Your task to perform on an android device: turn off location history Image 0: 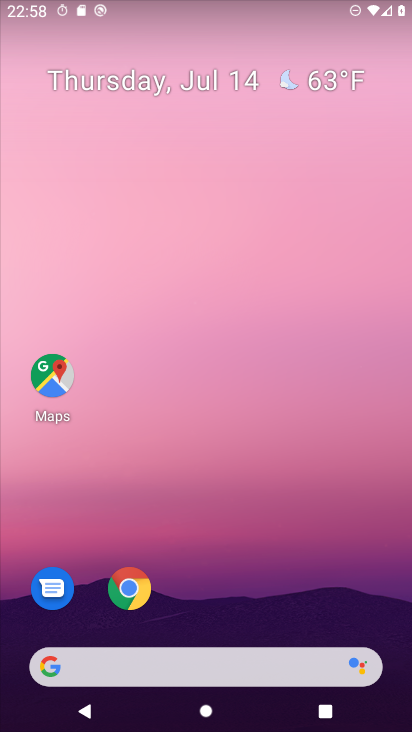
Step 0: drag from (385, 601) to (398, 94)
Your task to perform on an android device: turn off location history Image 1: 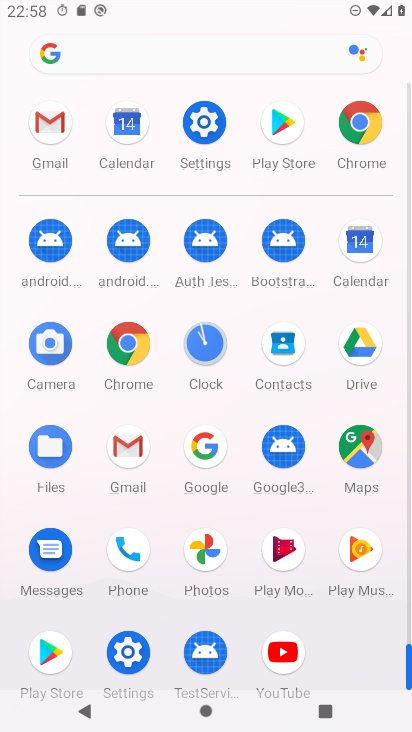
Step 1: click (195, 147)
Your task to perform on an android device: turn off location history Image 2: 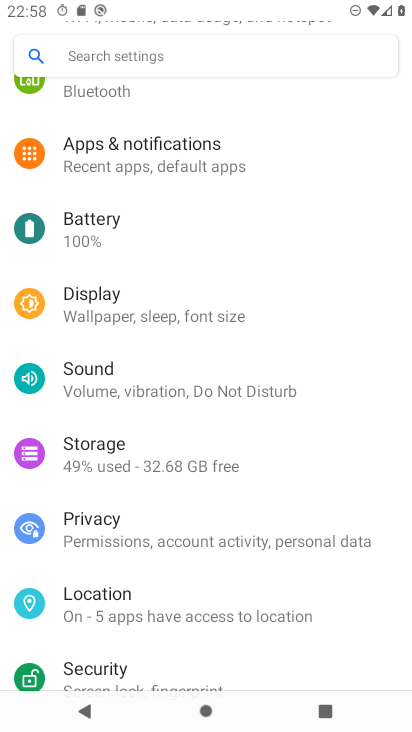
Step 2: drag from (368, 225) to (349, 299)
Your task to perform on an android device: turn off location history Image 3: 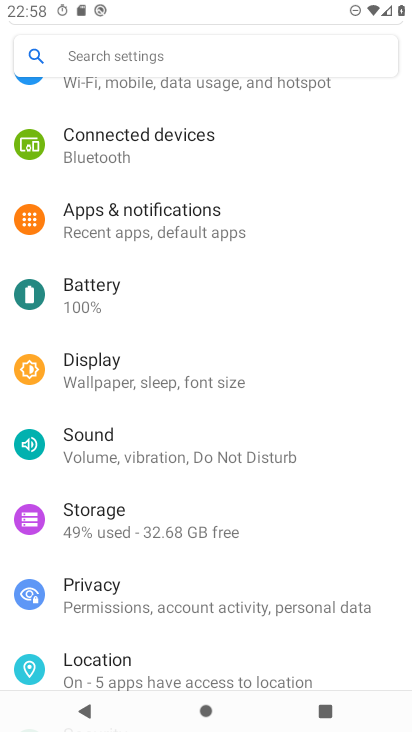
Step 3: drag from (356, 218) to (353, 306)
Your task to perform on an android device: turn off location history Image 4: 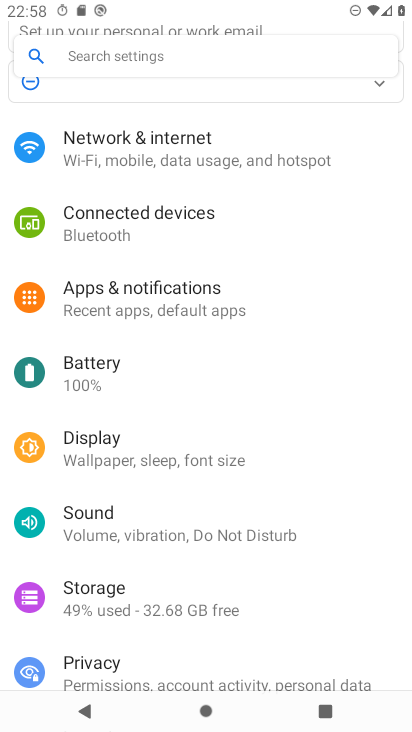
Step 4: drag from (354, 209) to (354, 320)
Your task to perform on an android device: turn off location history Image 5: 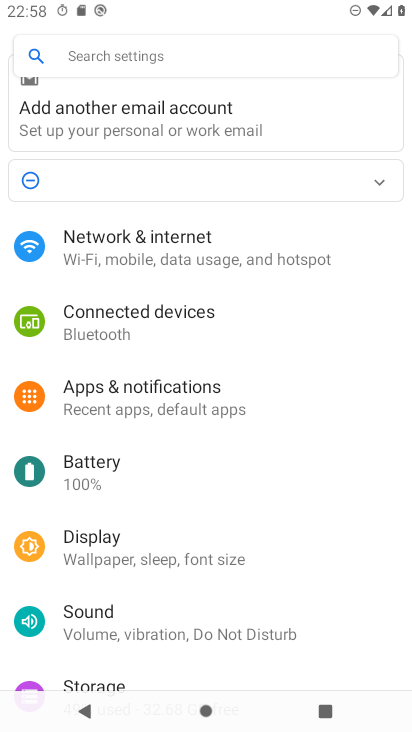
Step 5: drag from (356, 338) to (346, 251)
Your task to perform on an android device: turn off location history Image 6: 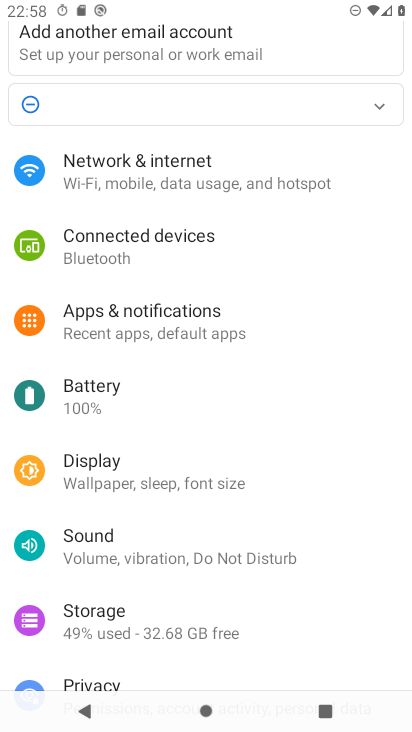
Step 6: drag from (346, 319) to (341, 263)
Your task to perform on an android device: turn off location history Image 7: 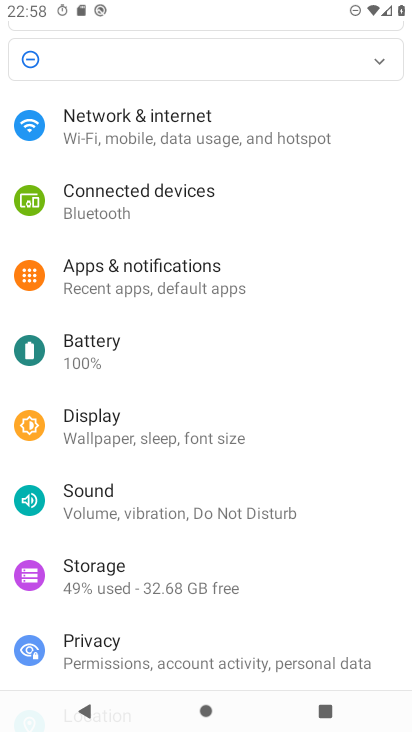
Step 7: drag from (354, 336) to (358, 259)
Your task to perform on an android device: turn off location history Image 8: 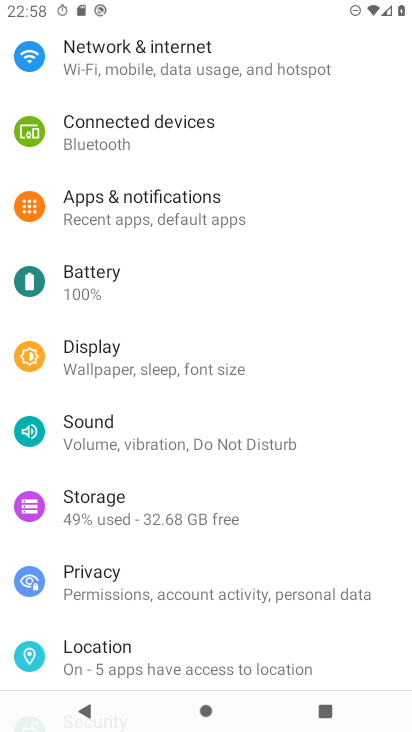
Step 8: drag from (345, 347) to (345, 272)
Your task to perform on an android device: turn off location history Image 9: 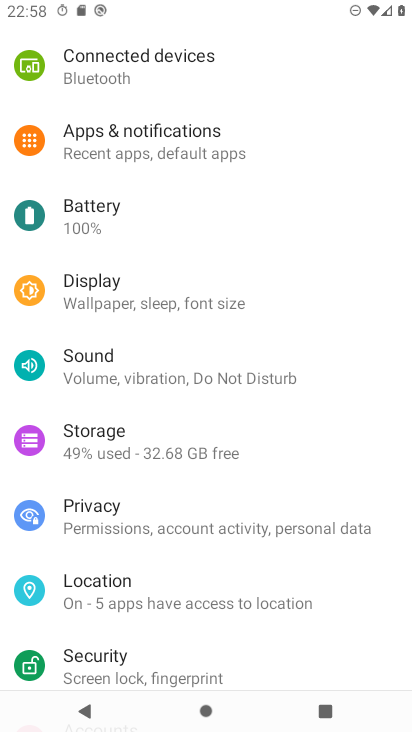
Step 9: drag from (348, 353) to (363, 244)
Your task to perform on an android device: turn off location history Image 10: 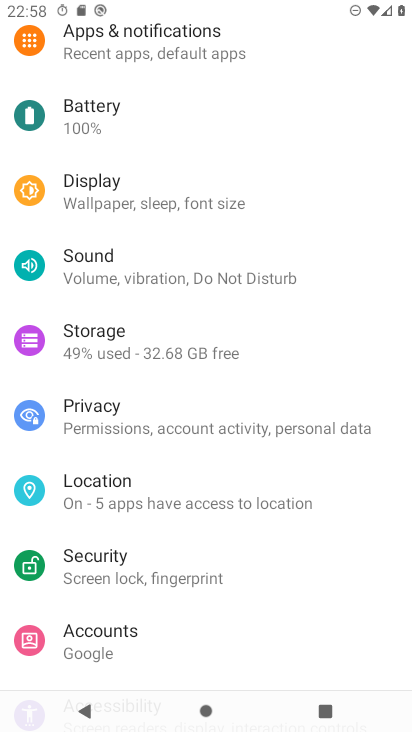
Step 10: drag from (358, 322) to (360, 226)
Your task to perform on an android device: turn off location history Image 11: 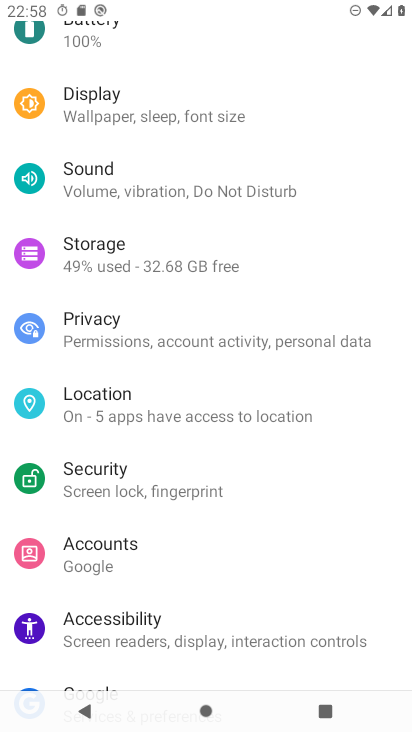
Step 11: drag from (363, 335) to (364, 193)
Your task to perform on an android device: turn off location history Image 12: 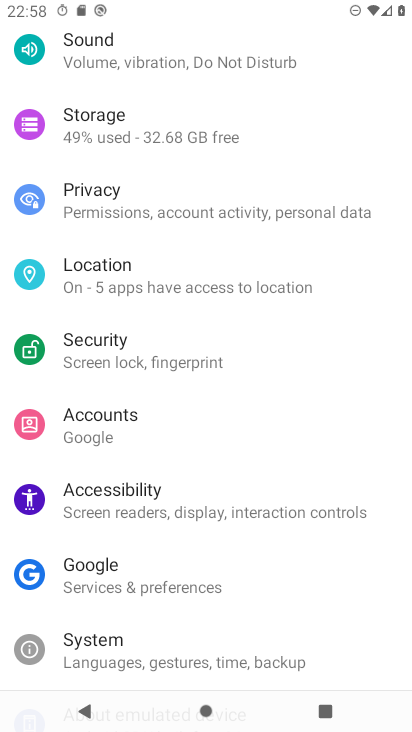
Step 12: drag from (363, 416) to (374, 289)
Your task to perform on an android device: turn off location history Image 13: 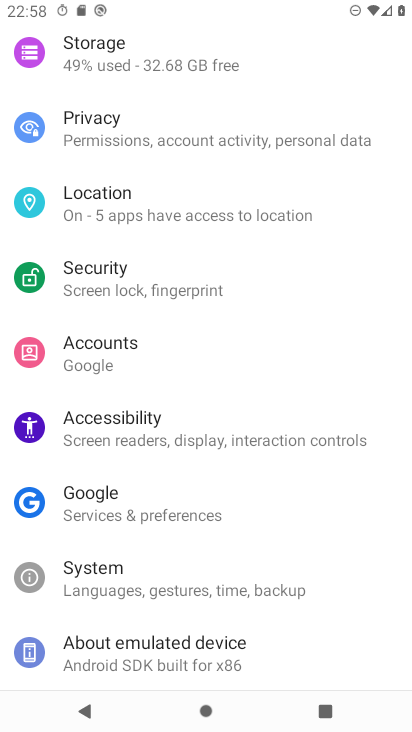
Step 13: click (319, 206)
Your task to perform on an android device: turn off location history Image 14: 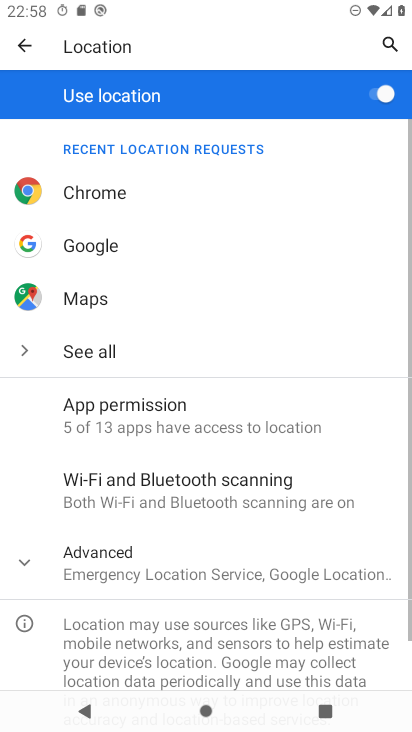
Step 14: click (308, 535)
Your task to perform on an android device: turn off location history Image 15: 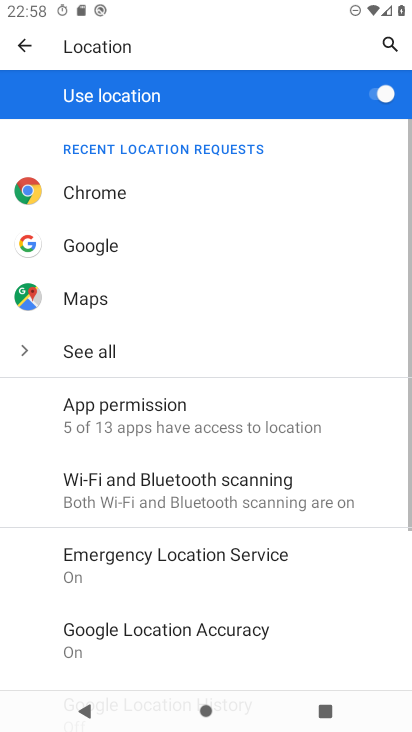
Step 15: task complete